Your task to perform on an android device: Search for Italian restaurants on Maps Image 0: 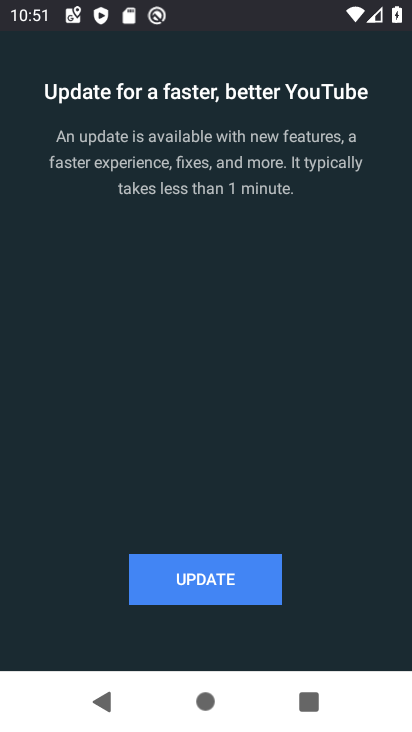
Step 0: press home button
Your task to perform on an android device: Search for Italian restaurants on Maps Image 1: 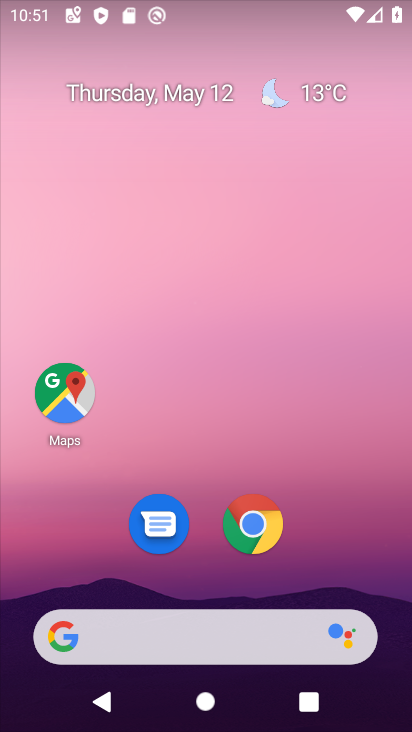
Step 1: click (59, 398)
Your task to perform on an android device: Search for Italian restaurants on Maps Image 2: 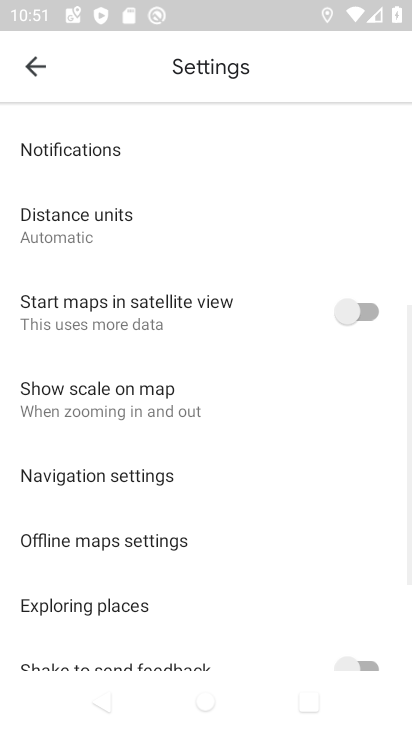
Step 2: click (33, 57)
Your task to perform on an android device: Search for Italian restaurants on Maps Image 3: 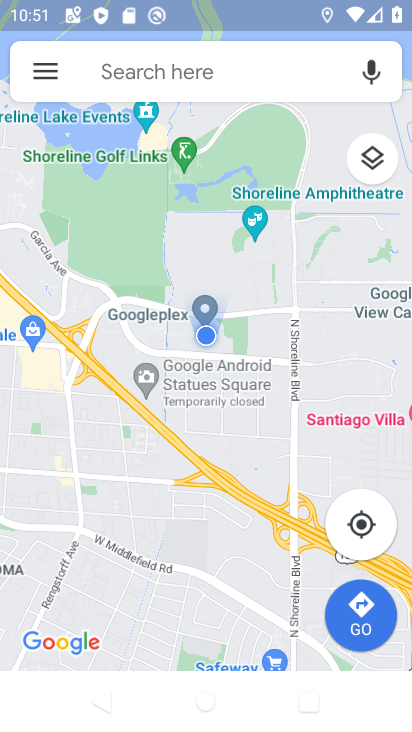
Step 3: click (95, 62)
Your task to perform on an android device: Search for Italian restaurants on Maps Image 4: 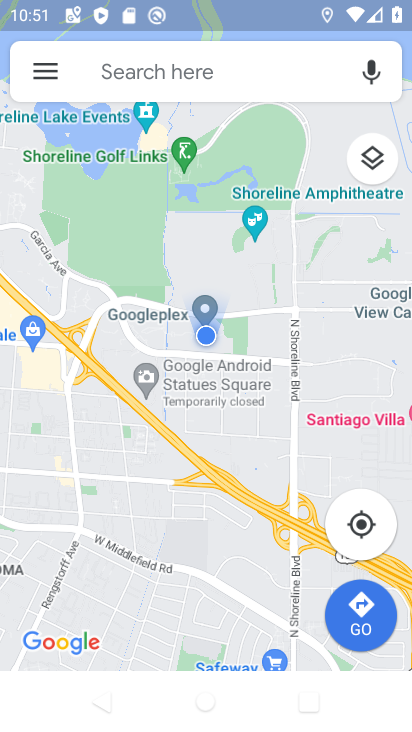
Step 4: click (121, 71)
Your task to perform on an android device: Search for Italian restaurants on Maps Image 5: 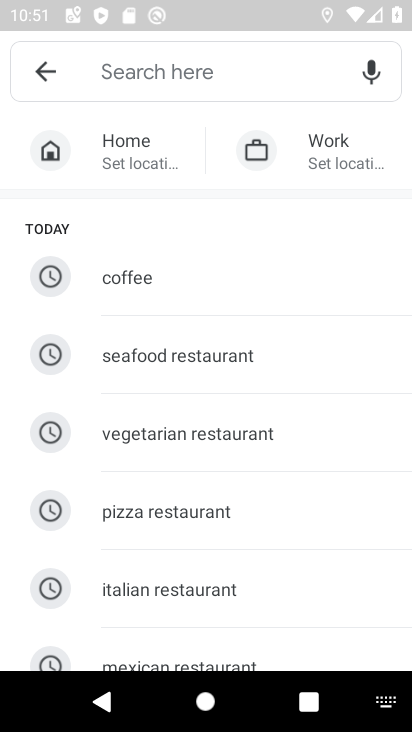
Step 5: click (144, 580)
Your task to perform on an android device: Search for Italian restaurants on Maps Image 6: 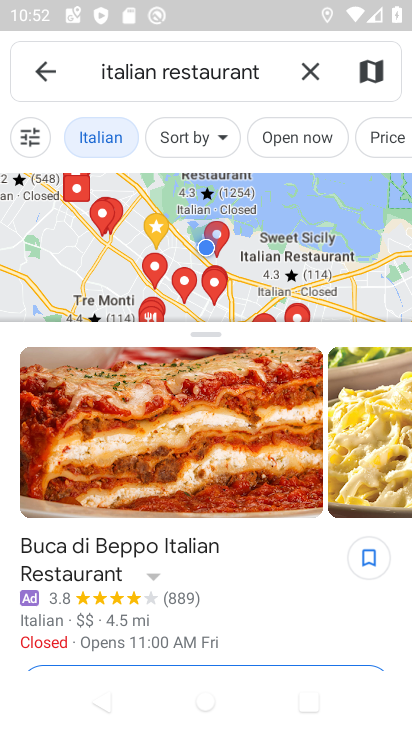
Step 6: task complete